Your task to perform on an android device: What's the weather going to be tomorrow? Image 0: 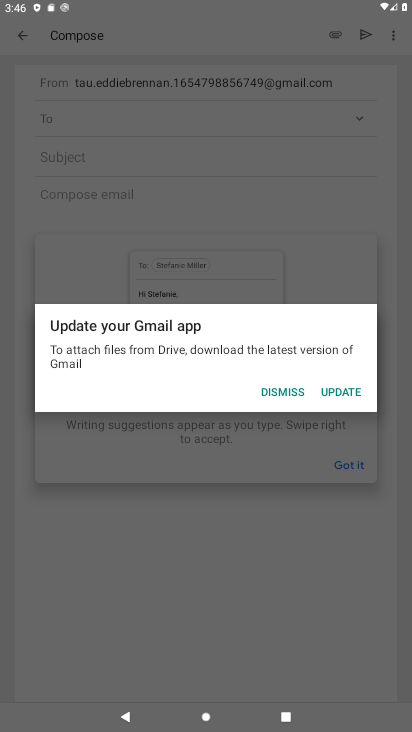
Step 0: press home button
Your task to perform on an android device: What's the weather going to be tomorrow? Image 1: 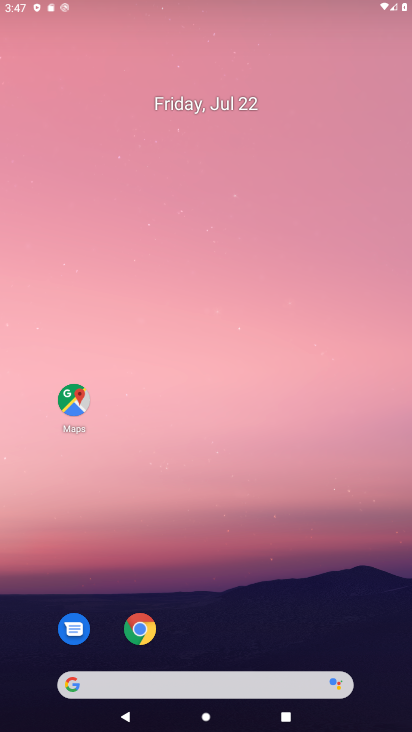
Step 1: drag from (347, 650) to (260, 110)
Your task to perform on an android device: What's the weather going to be tomorrow? Image 2: 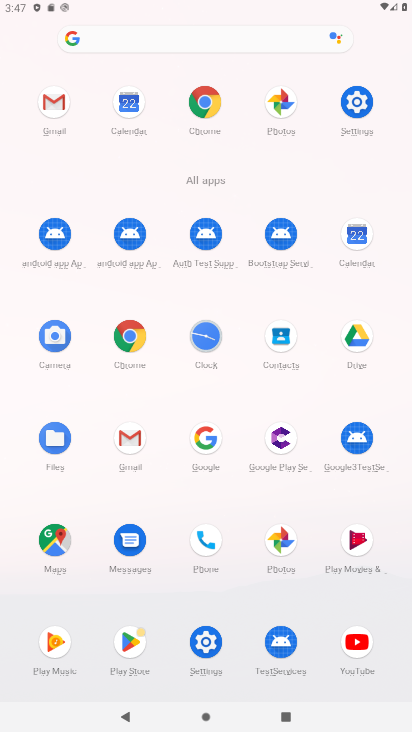
Step 2: click (207, 98)
Your task to perform on an android device: What's the weather going to be tomorrow? Image 3: 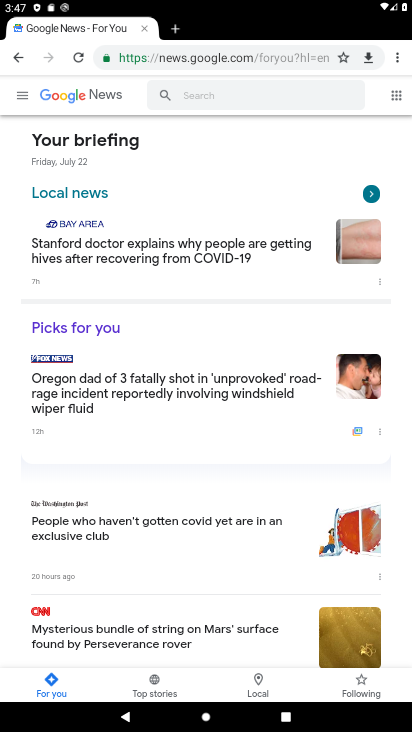
Step 3: click (252, 62)
Your task to perform on an android device: What's the weather going to be tomorrow? Image 4: 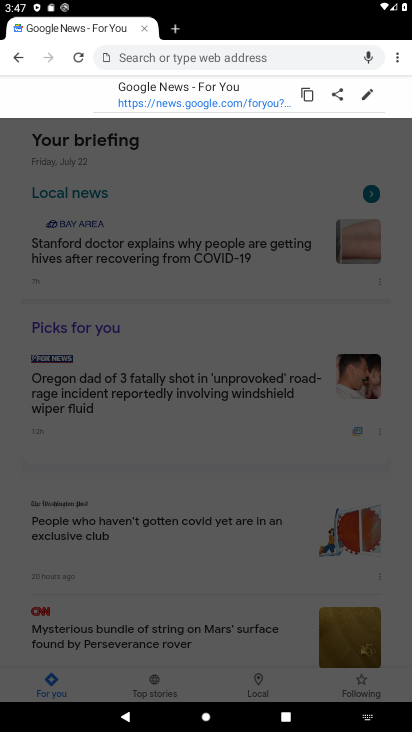
Step 4: type "weather"
Your task to perform on an android device: What's the weather going to be tomorrow? Image 5: 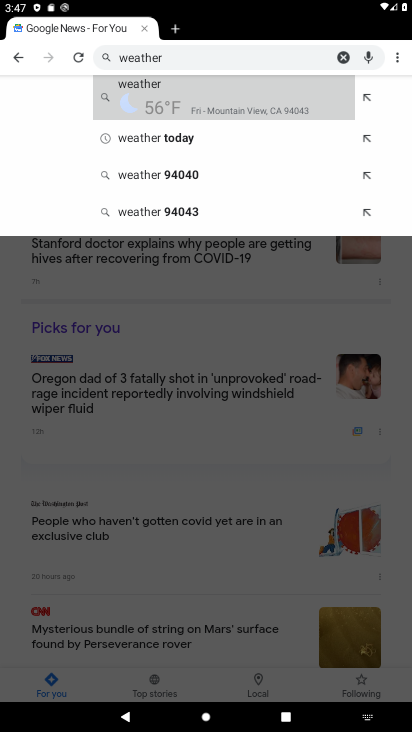
Step 5: click (149, 100)
Your task to perform on an android device: What's the weather going to be tomorrow? Image 6: 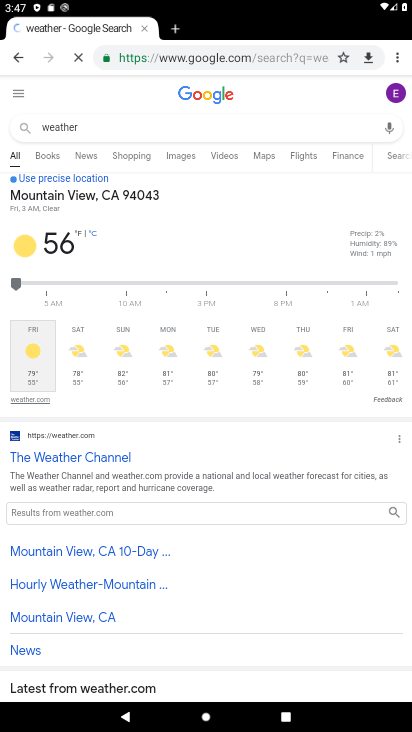
Step 6: click (76, 343)
Your task to perform on an android device: What's the weather going to be tomorrow? Image 7: 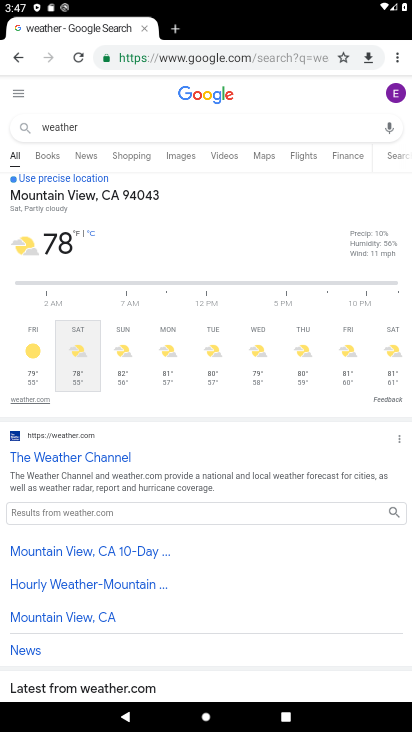
Step 7: task complete